Your task to perform on an android device: Go to ESPN.com Image 0: 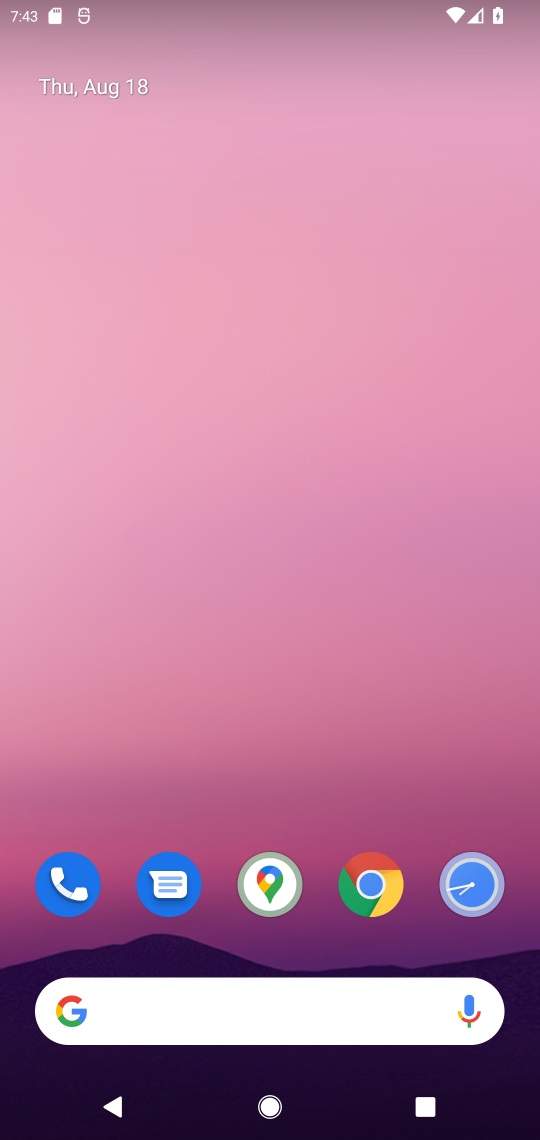
Step 0: click (365, 875)
Your task to perform on an android device: Go to ESPN.com Image 1: 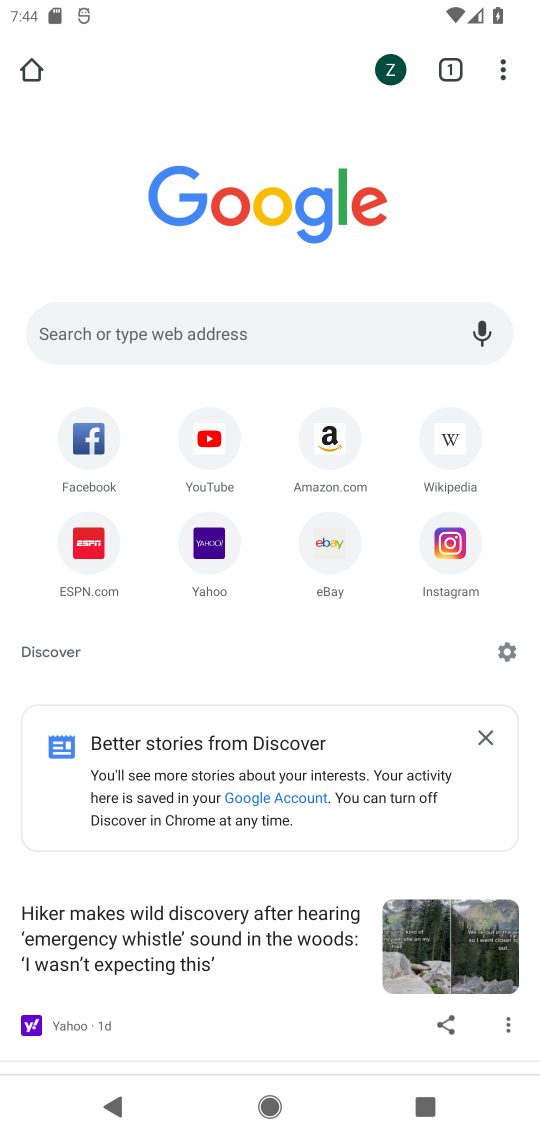
Step 1: click (79, 549)
Your task to perform on an android device: Go to ESPN.com Image 2: 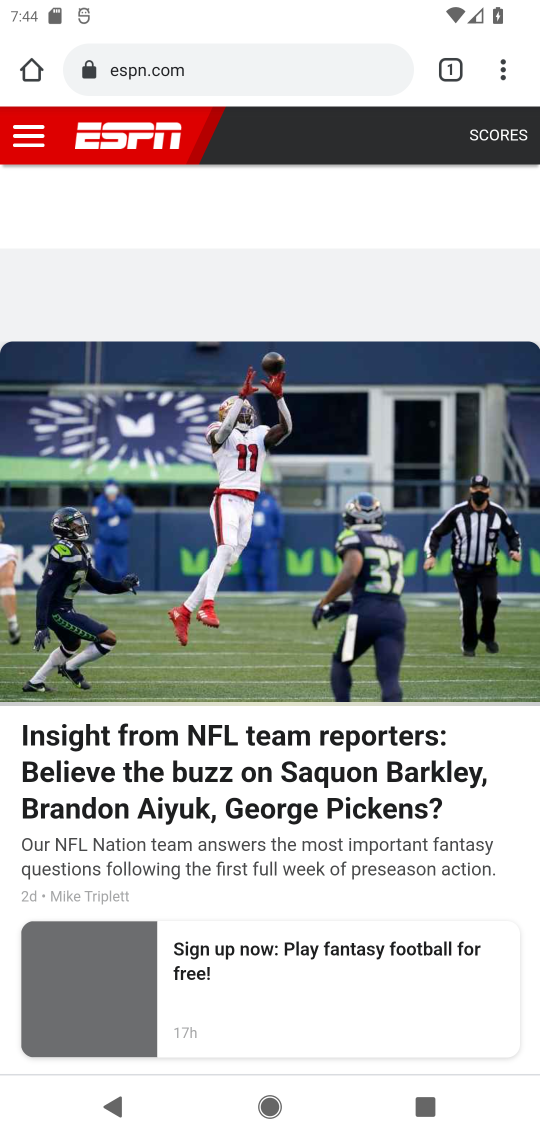
Step 2: task complete